Your task to perform on an android device: Look up the best rated bike seats on Target Image 0: 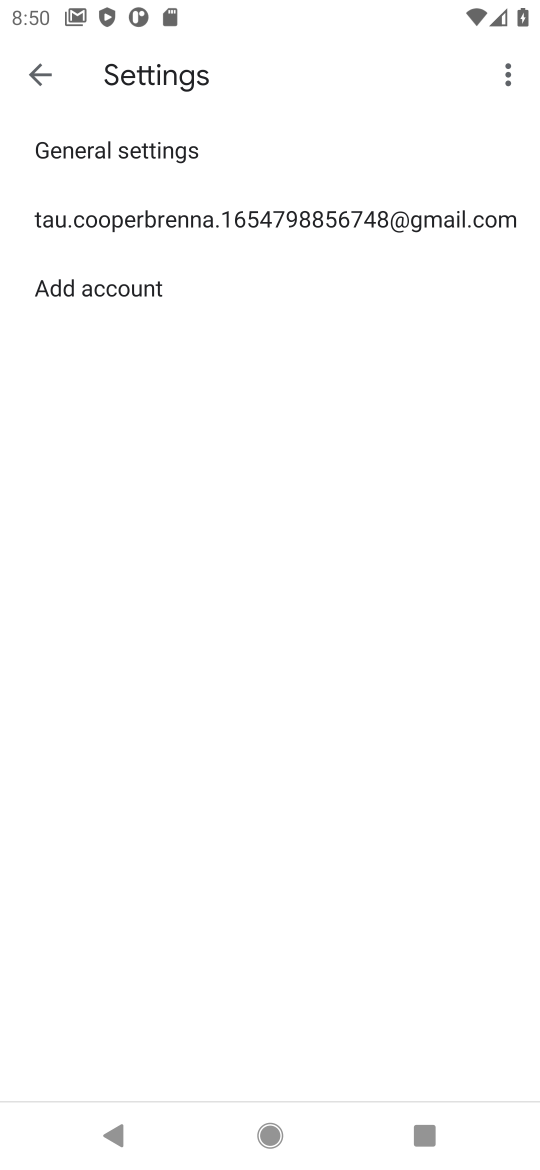
Step 0: press back button
Your task to perform on an android device: Look up the best rated bike seats on Target Image 1: 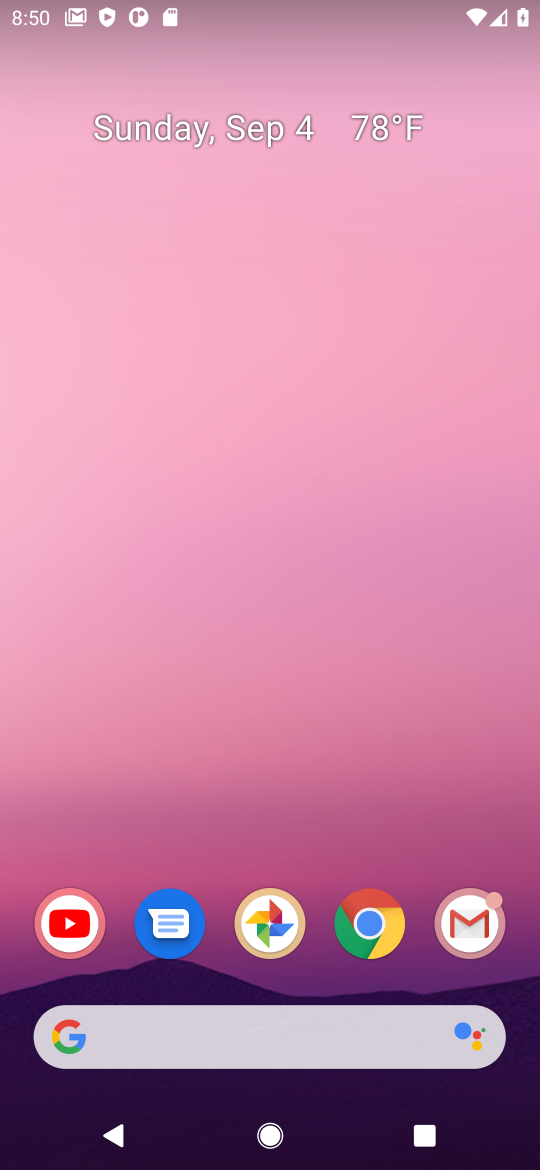
Step 1: click (340, 927)
Your task to perform on an android device: Look up the best rated bike seats on Target Image 2: 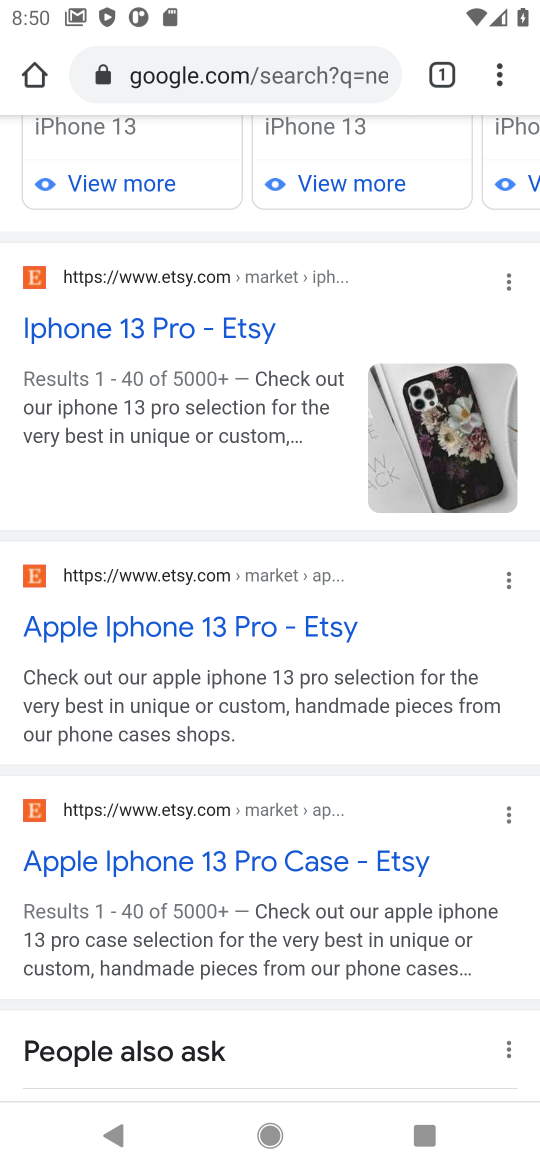
Step 2: press back button
Your task to perform on an android device: Look up the best rated bike seats on Target Image 3: 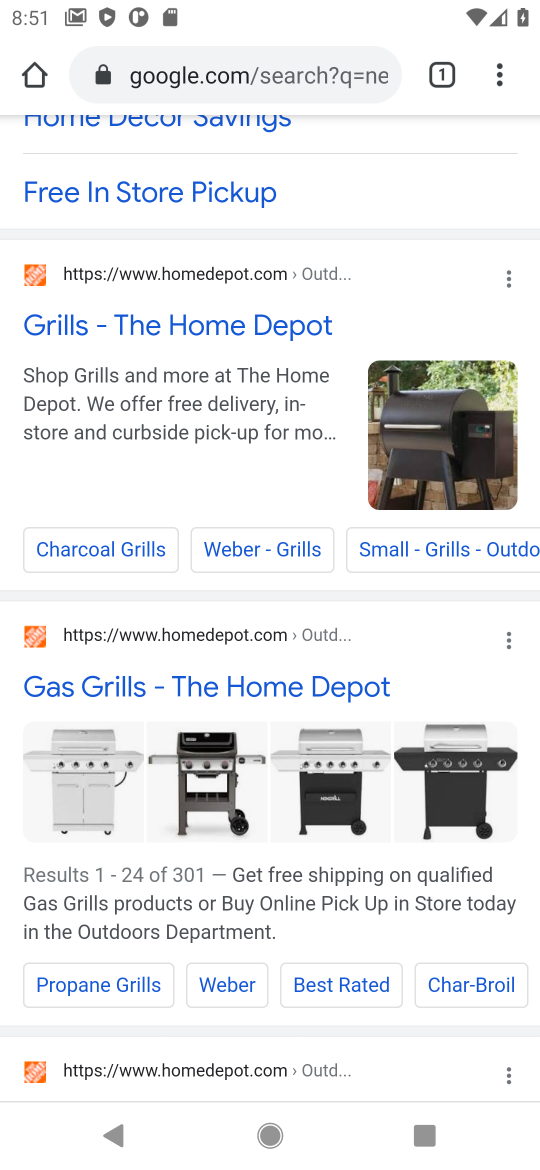
Step 3: click (234, 70)
Your task to perform on an android device: Look up the best rated bike seats on Target Image 4: 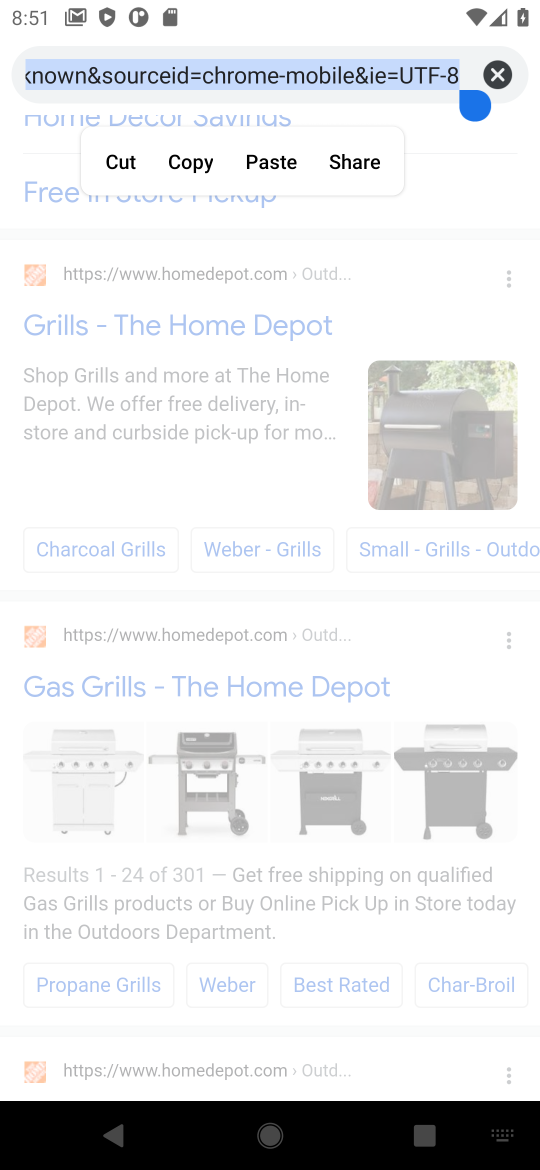
Step 4: click (497, 74)
Your task to perform on an android device: Look up the best rated bike seats on Target Image 5: 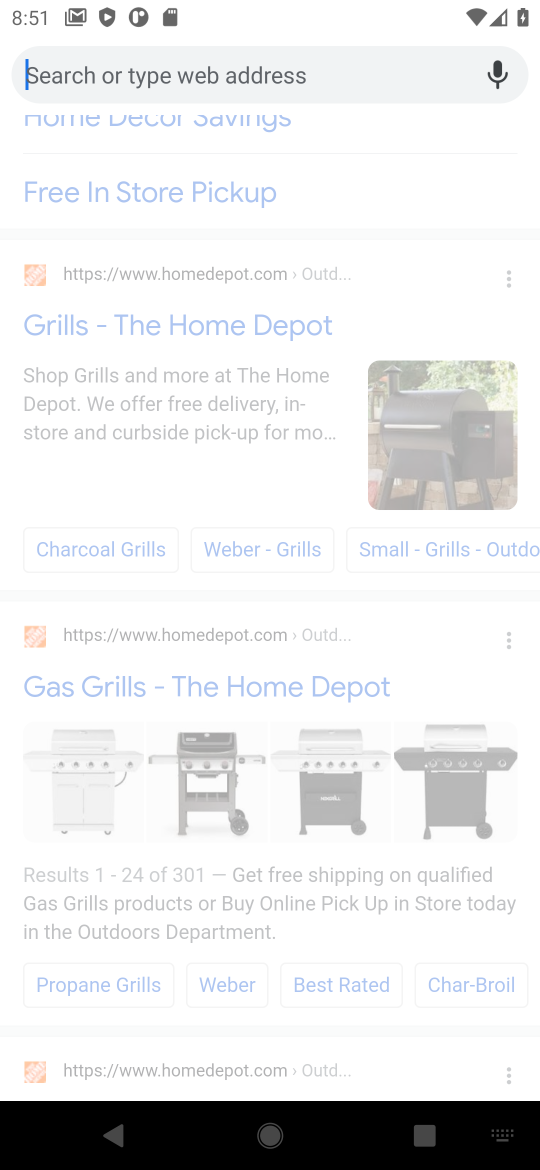
Step 5: type "best rated bike seats on Target"
Your task to perform on an android device: Look up the best rated bike seats on Target Image 6: 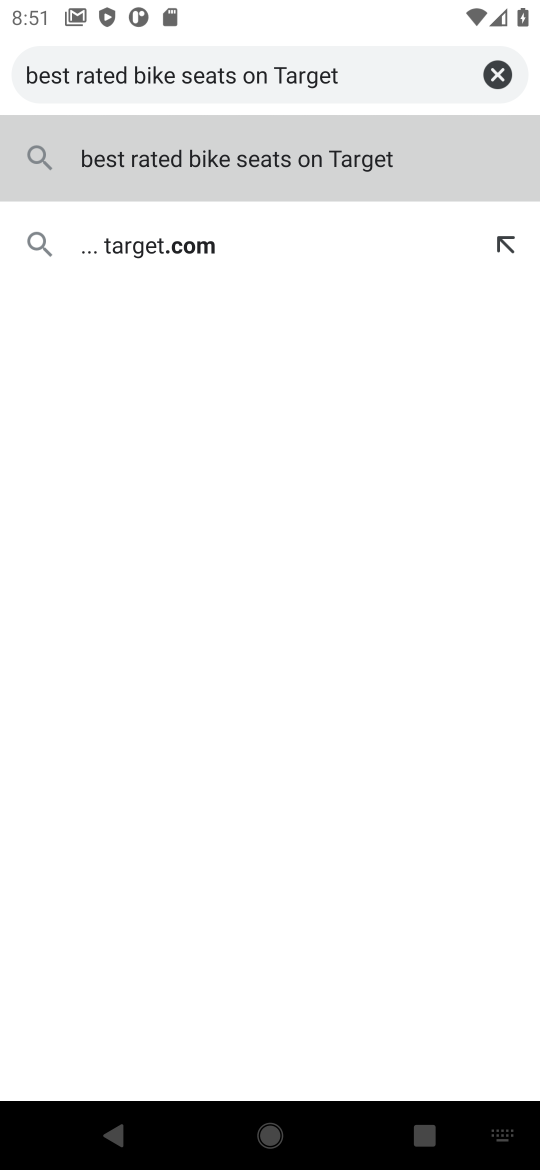
Step 6: click (328, 155)
Your task to perform on an android device: Look up the best rated bike seats on Target Image 7: 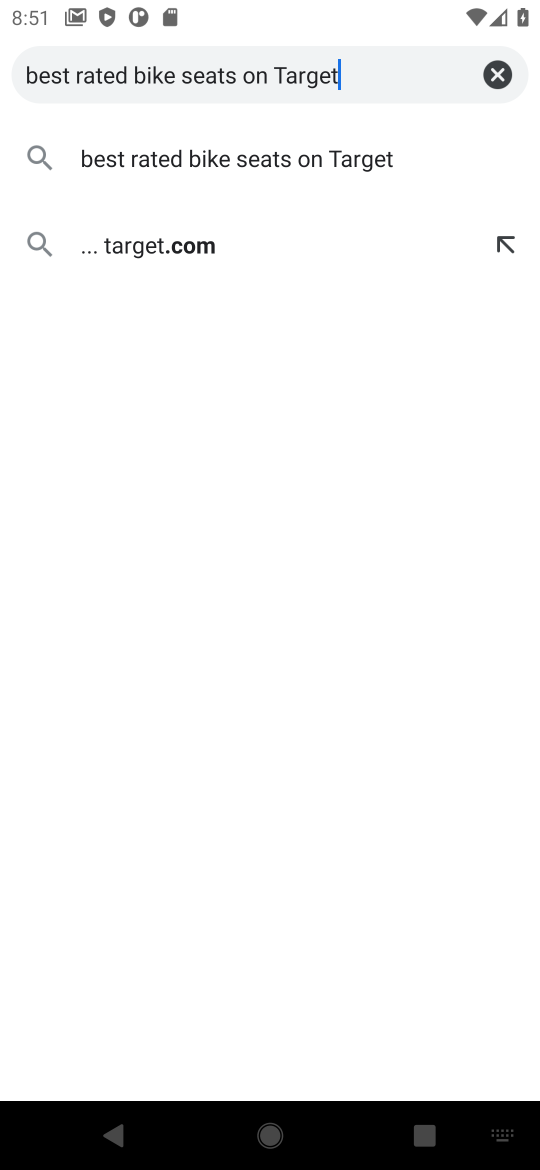
Step 7: click (314, 157)
Your task to perform on an android device: Look up the best rated bike seats on Target Image 8: 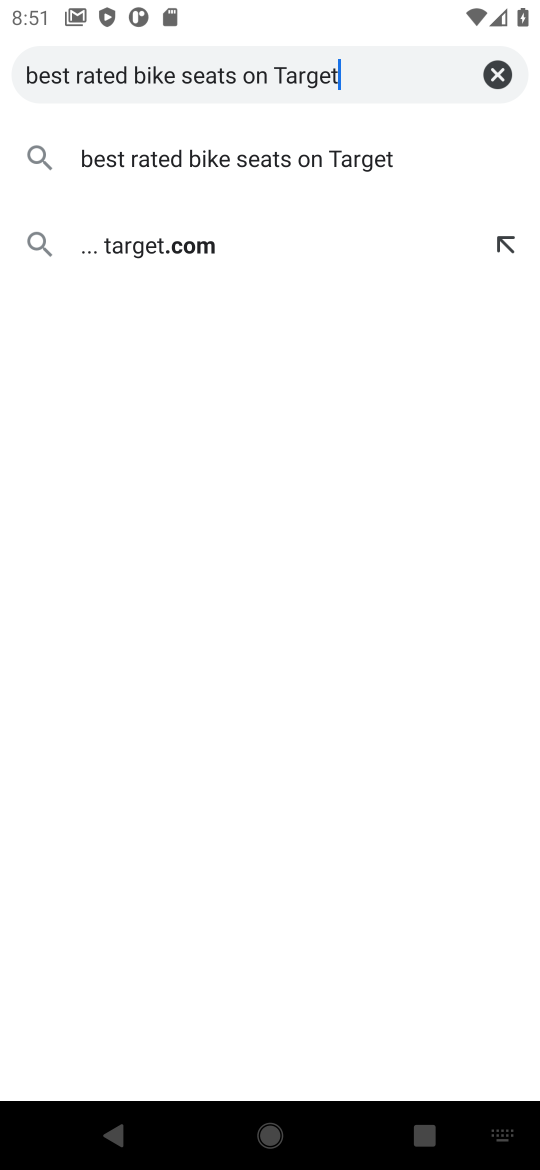
Step 8: click (165, 160)
Your task to perform on an android device: Look up the best rated bike seats on Target Image 9: 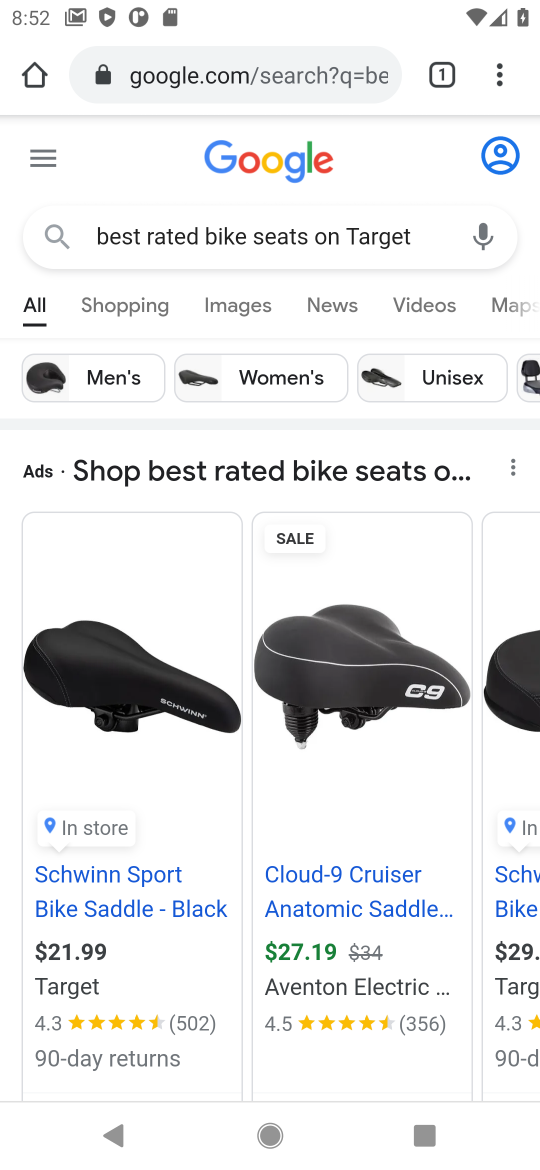
Step 9: task complete